Your task to perform on an android device: add a contact in the contacts app Image 0: 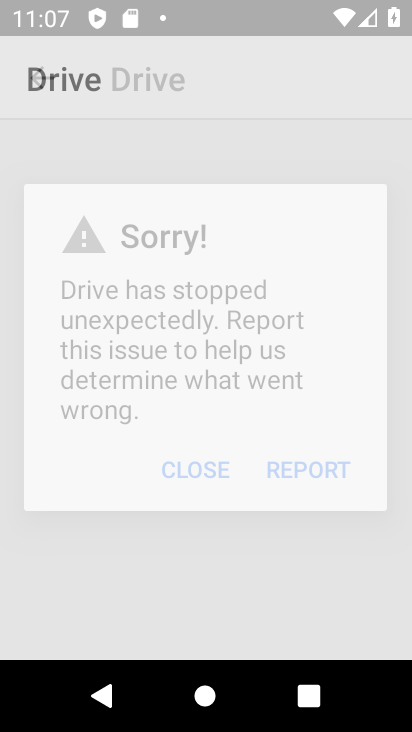
Step 0: drag from (389, 542) to (258, 108)
Your task to perform on an android device: add a contact in the contacts app Image 1: 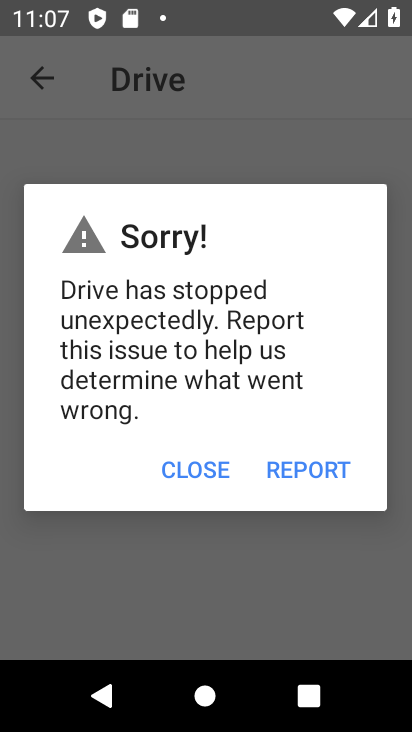
Step 1: press home button
Your task to perform on an android device: add a contact in the contacts app Image 2: 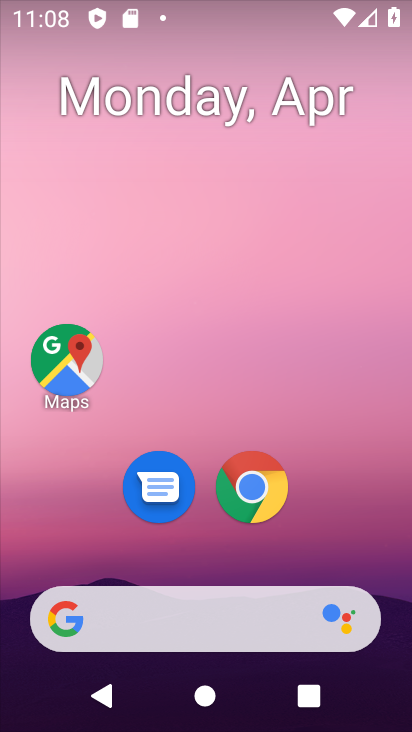
Step 2: drag from (391, 547) to (292, 91)
Your task to perform on an android device: add a contact in the contacts app Image 3: 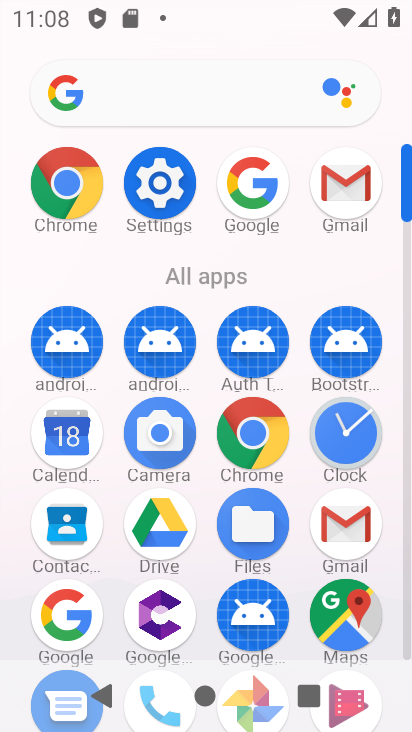
Step 3: click (77, 523)
Your task to perform on an android device: add a contact in the contacts app Image 4: 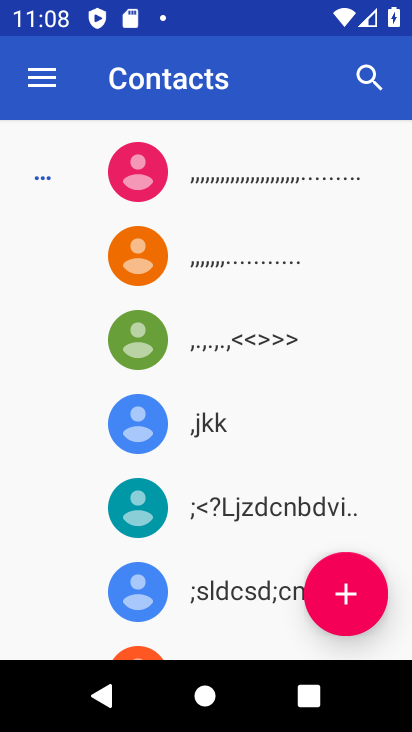
Step 4: click (346, 591)
Your task to perform on an android device: add a contact in the contacts app Image 5: 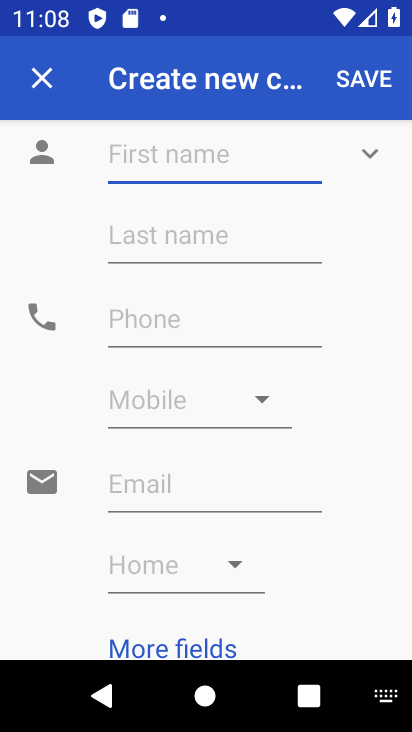
Step 5: click (181, 172)
Your task to perform on an android device: add a contact in the contacts app Image 6: 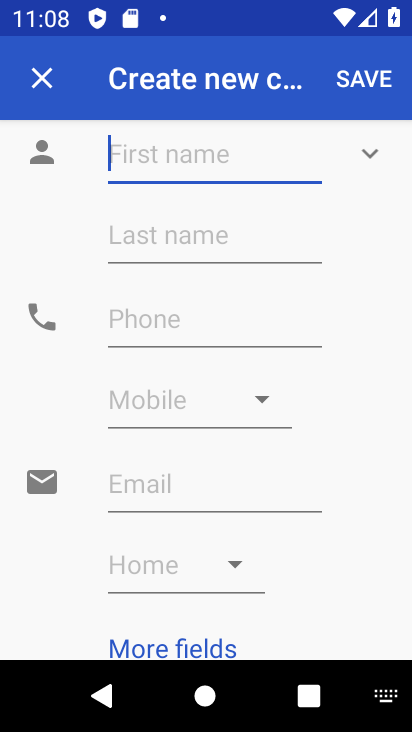
Step 6: type "hjgjghg"
Your task to perform on an android device: add a contact in the contacts app Image 7: 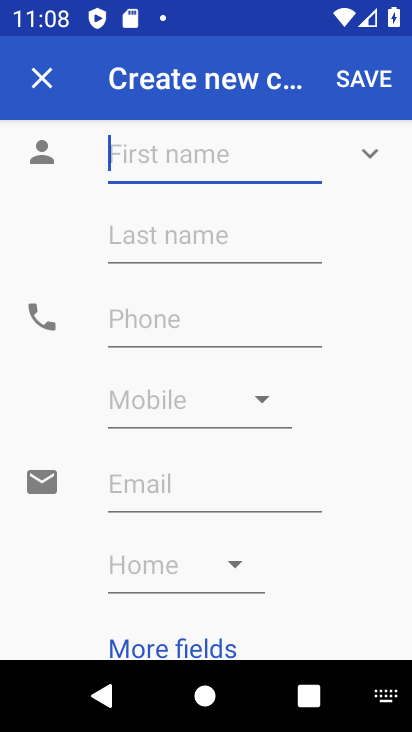
Step 7: click (275, 326)
Your task to perform on an android device: add a contact in the contacts app Image 8: 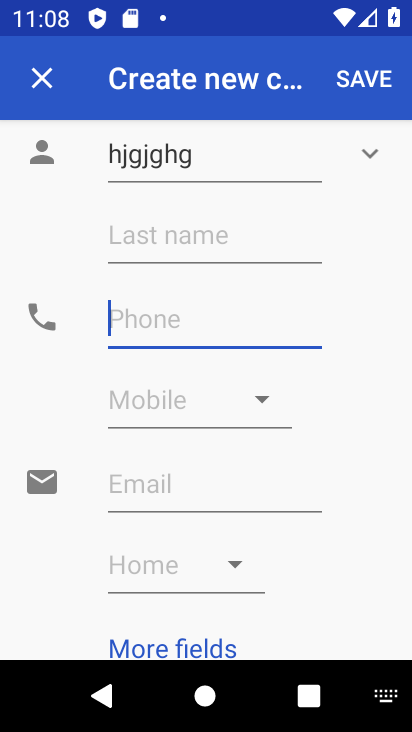
Step 8: type "8767866798"
Your task to perform on an android device: add a contact in the contacts app Image 9: 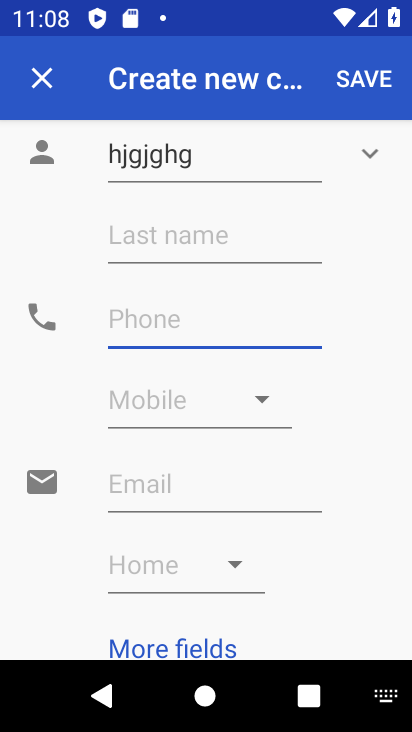
Step 9: click (393, 489)
Your task to perform on an android device: add a contact in the contacts app Image 10: 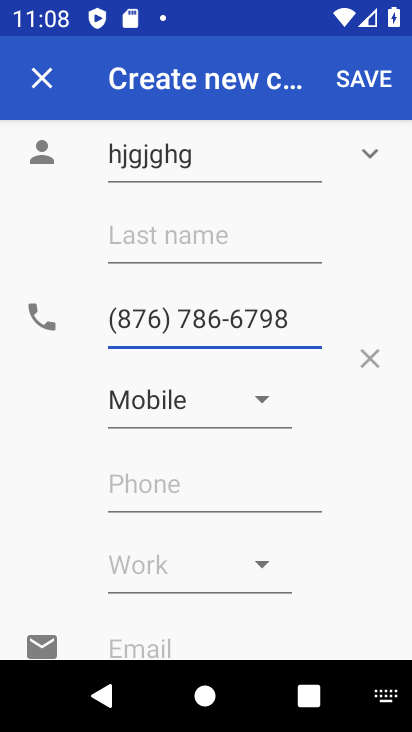
Step 10: click (374, 70)
Your task to perform on an android device: add a contact in the contacts app Image 11: 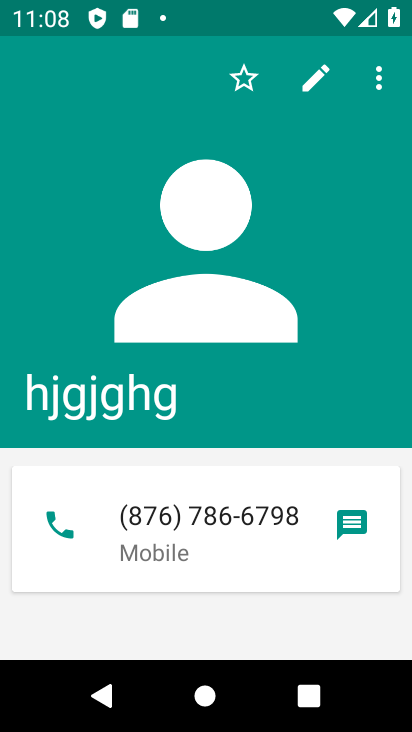
Step 11: task complete